Your task to perform on an android device: turn on priority inbox in the gmail app Image 0: 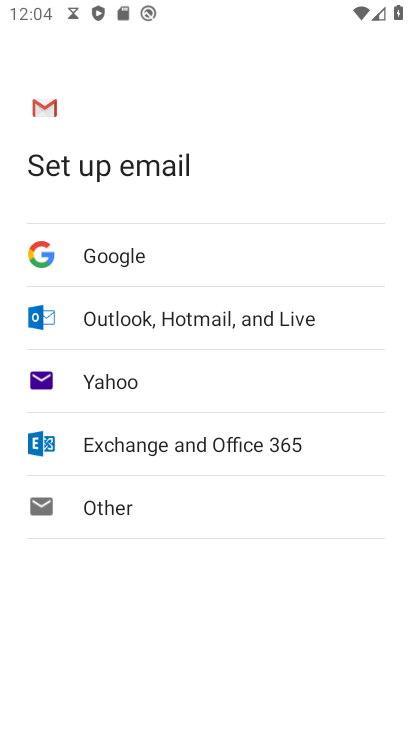
Step 0: press back button
Your task to perform on an android device: turn on priority inbox in the gmail app Image 1: 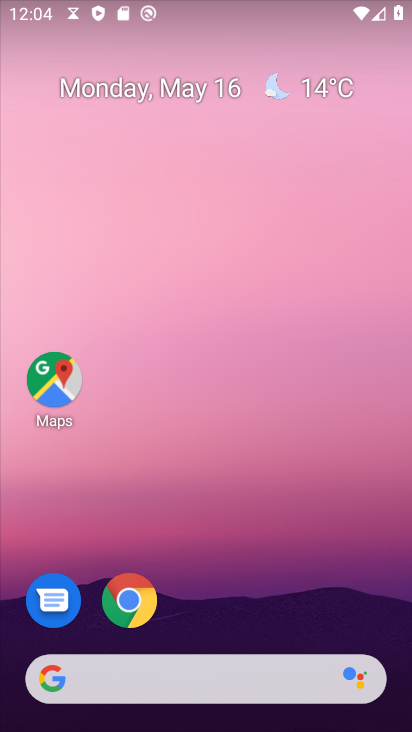
Step 1: drag from (244, 594) to (232, 70)
Your task to perform on an android device: turn on priority inbox in the gmail app Image 2: 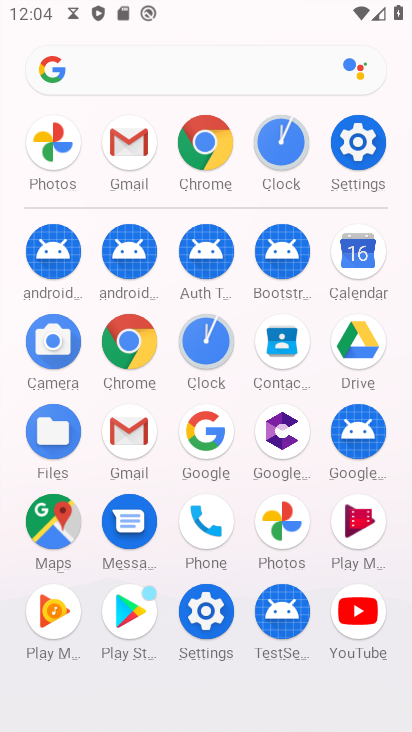
Step 2: click (131, 431)
Your task to perform on an android device: turn on priority inbox in the gmail app Image 3: 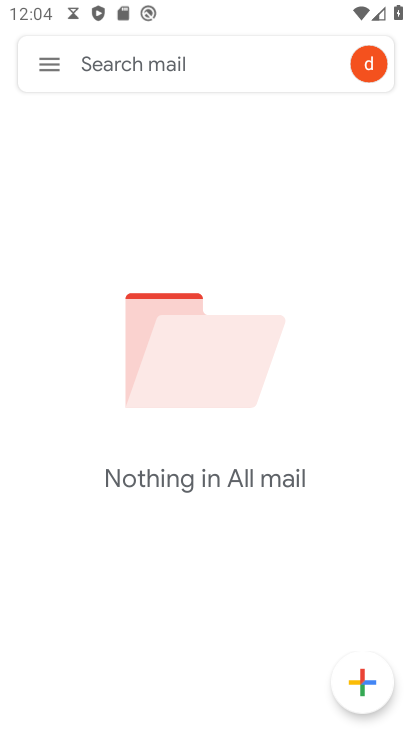
Step 3: click (40, 54)
Your task to perform on an android device: turn on priority inbox in the gmail app Image 4: 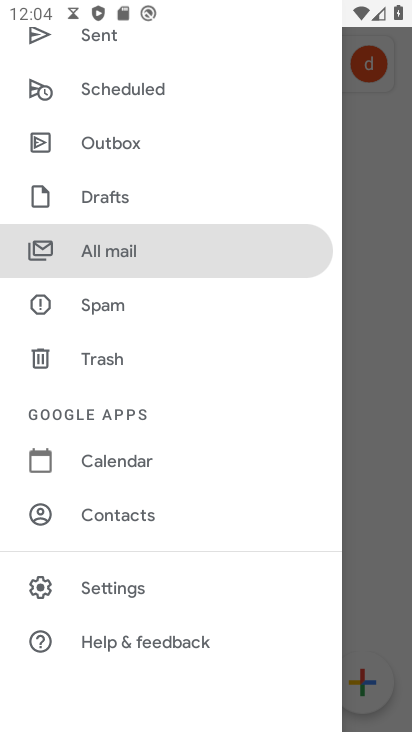
Step 4: click (99, 575)
Your task to perform on an android device: turn on priority inbox in the gmail app Image 5: 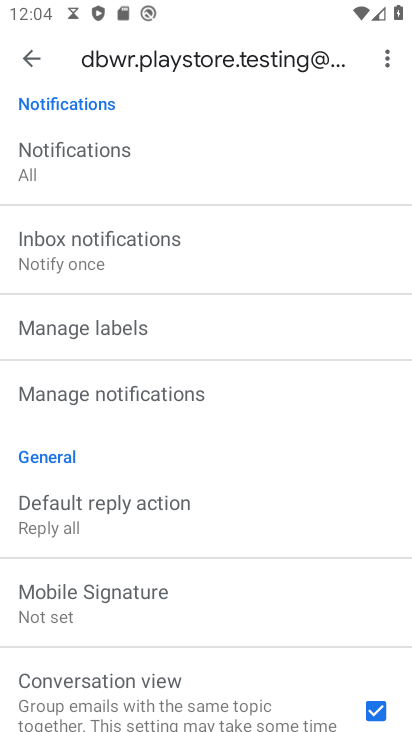
Step 5: drag from (145, 199) to (176, 553)
Your task to perform on an android device: turn on priority inbox in the gmail app Image 6: 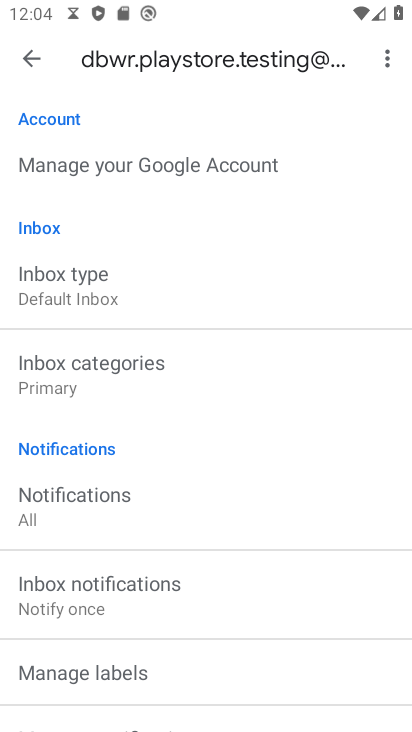
Step 6: click (120, 290)
Your task to perform on an android device: turn on priority inbox in the gmail app Image 7: 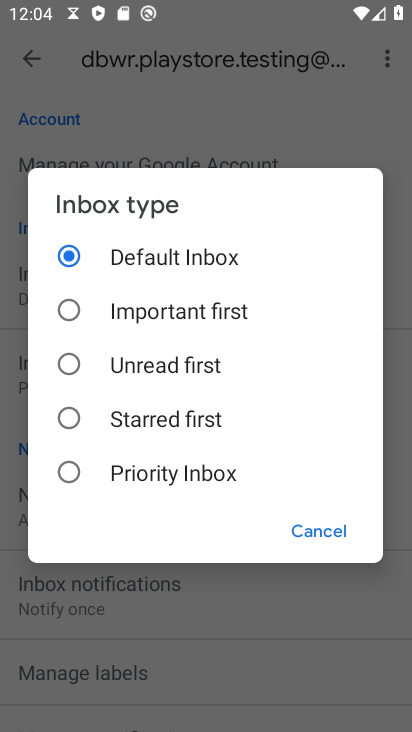
Step 7: click (116, 477)
Your task to perform on an android device: turn on priority inbox in the gmail app Image 8: 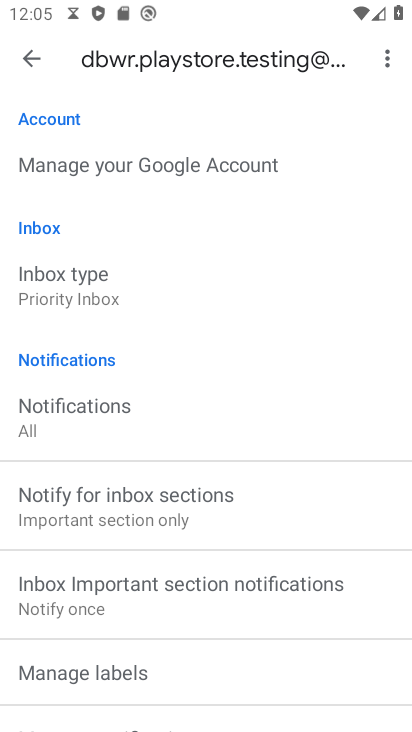
Step 8: task complete